Your task to perform on an android device: open app "Expedia: Hotels, Flights & Car" Image 0: 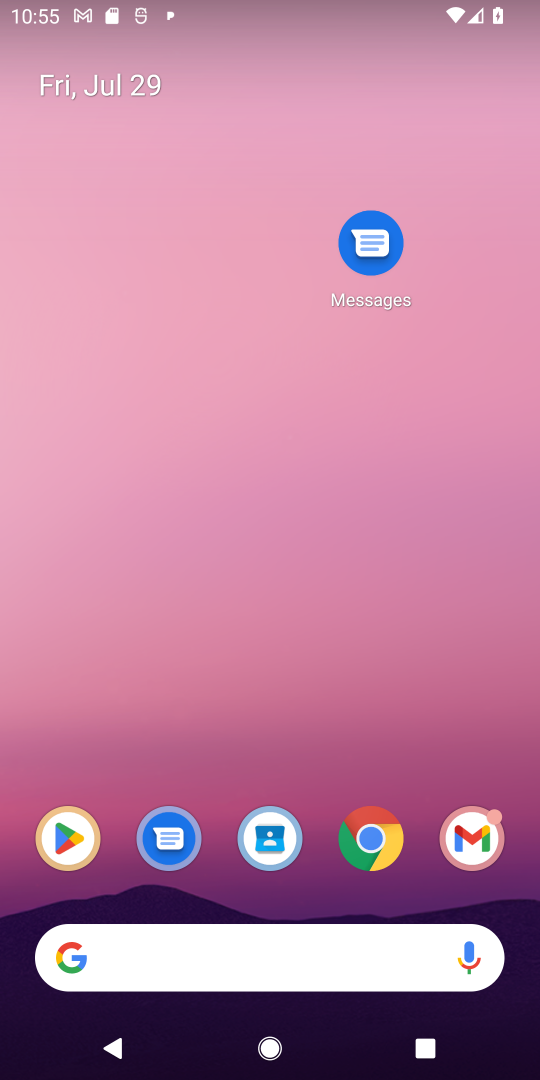
Step 0: click (67, 848)
Your task to perform on an android device: open app "Expedia: Hotels, Flights & Car" Image 1: 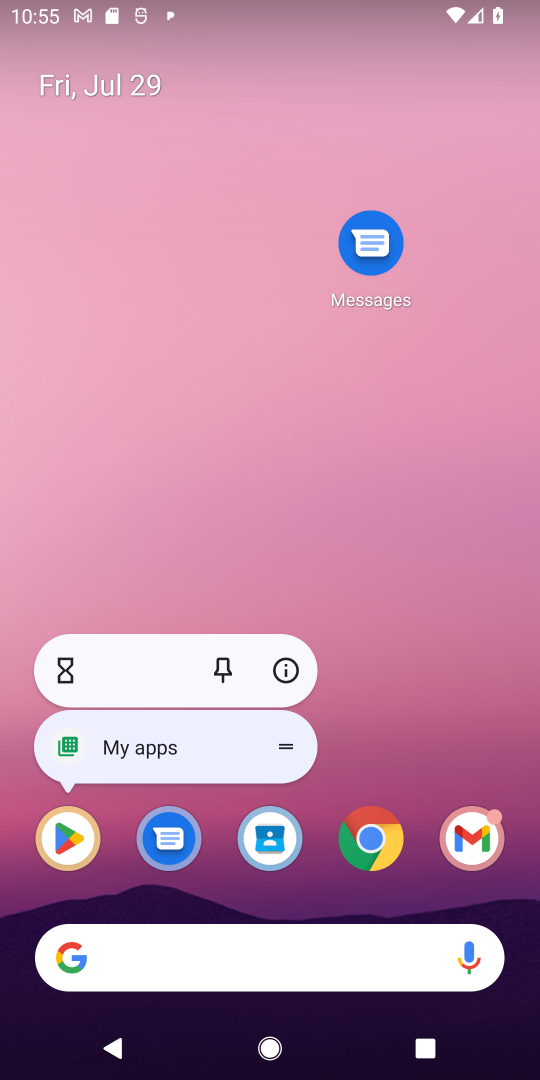
Step 1: click (86, 844)
Your task to perform on an android device: open app "Expedia: Hotels, Flights & Car" Image 2: 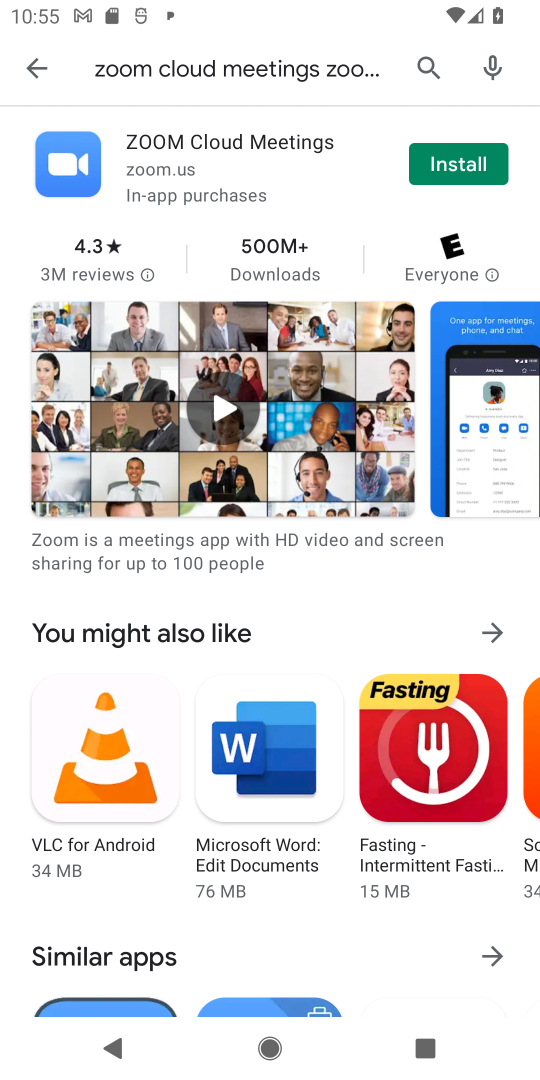
Step 2: click (208, 63)
Your task to perform on an android device: open app "Expedia: Hotels, Flights & Car" Image 3: 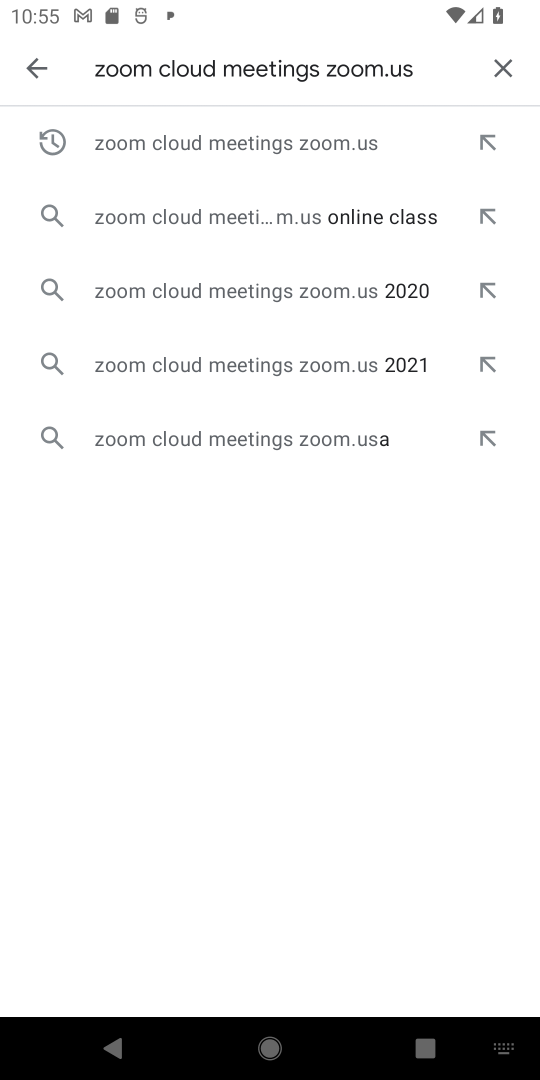
Step 3: click (509, 61)
Your task to perform on an android device: open app "Expedia: Hotels, Flights & Car" Image 4: 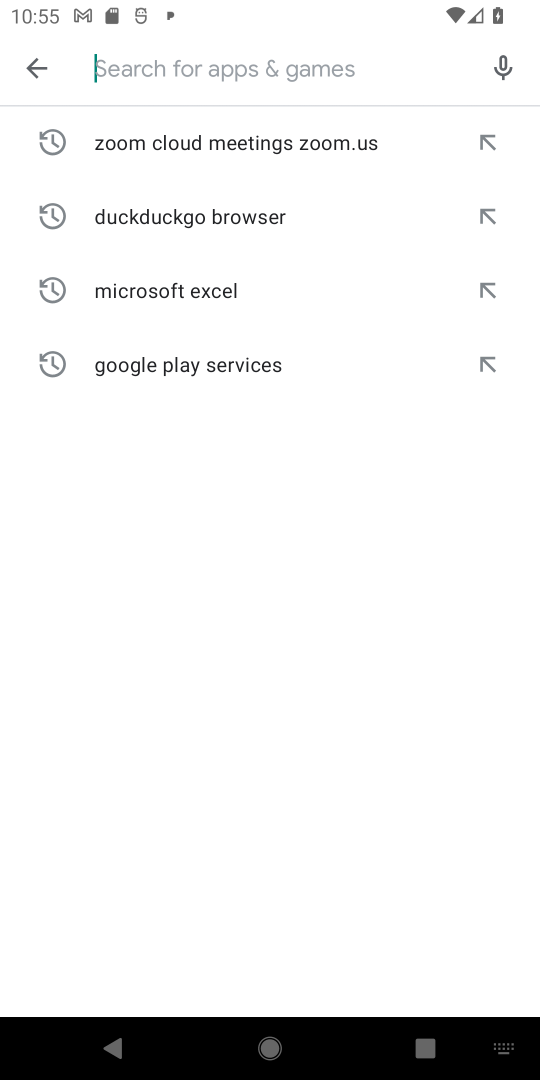
Step 4: type "Expedia"
Your task to perform on an android device: open app "Expedia: Hotels, Flights & Car" Image 5: 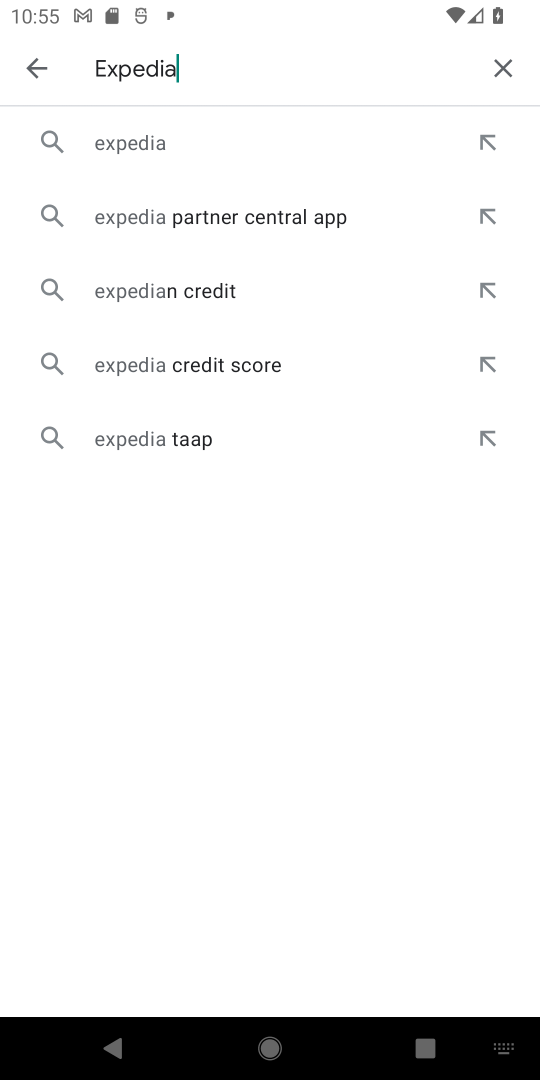
Step 5: click (161, 152)
Your task to perform on an android device: open app "Expedia: Hotels, Flights & Car" Image 6: 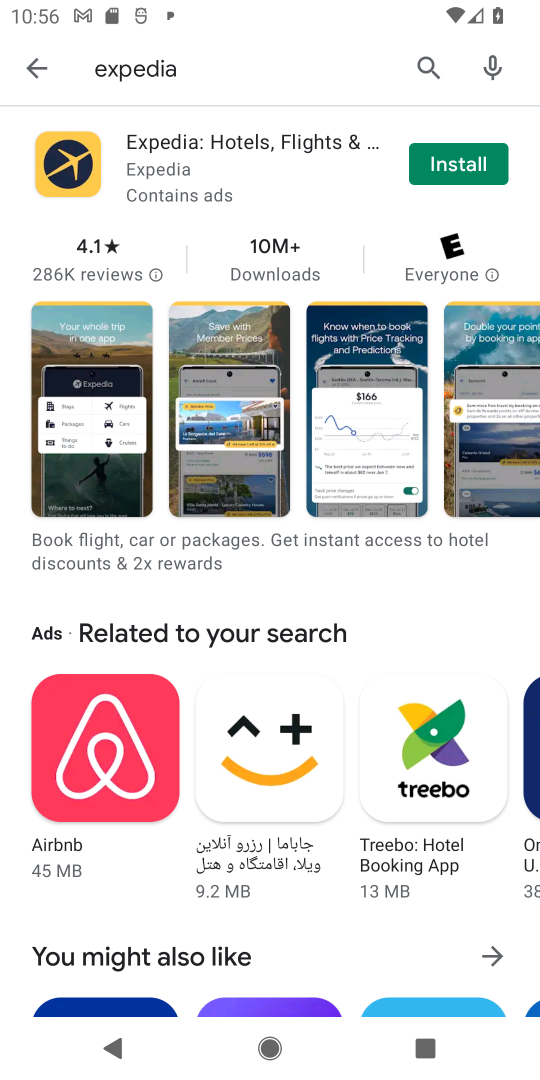
Step 6: task complete